Your task to perform on an android device: toggle pop-ups in chrome Image 0: 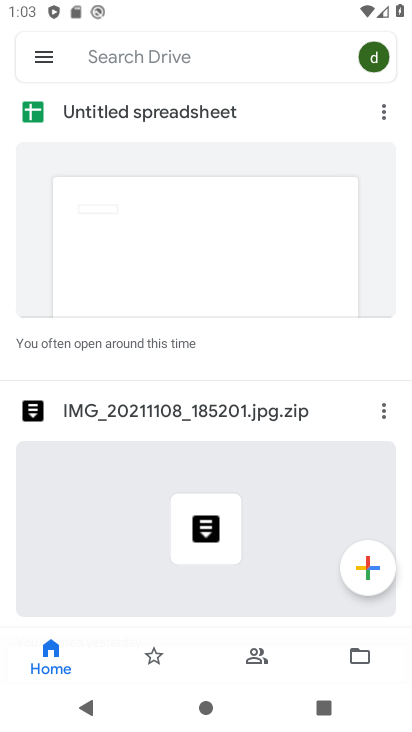
Step 0: press home button
Your task to perform on an android device: toggle pop-ups in chrome Image 1: 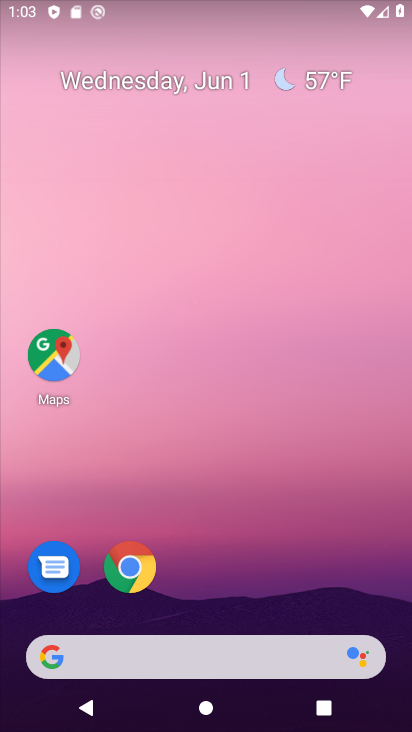
Step 1: click (135, 576)
Your task to perform on an android device: toggle pop-ups in chrome Image 2: 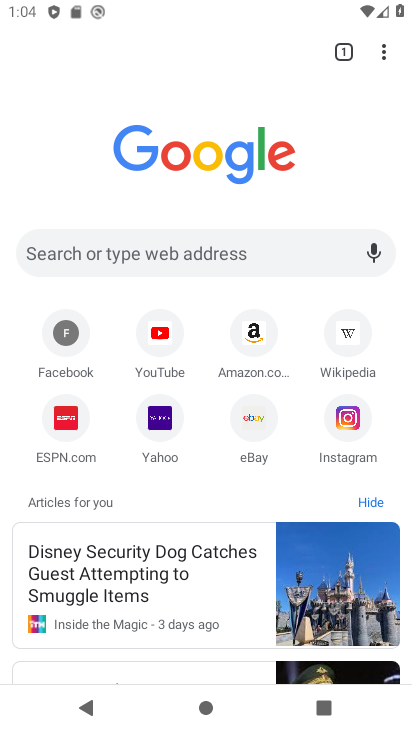
Step 2: click (379, 63)
Your task to perform on an android device: toggle pop-ups in chrome Image 3: 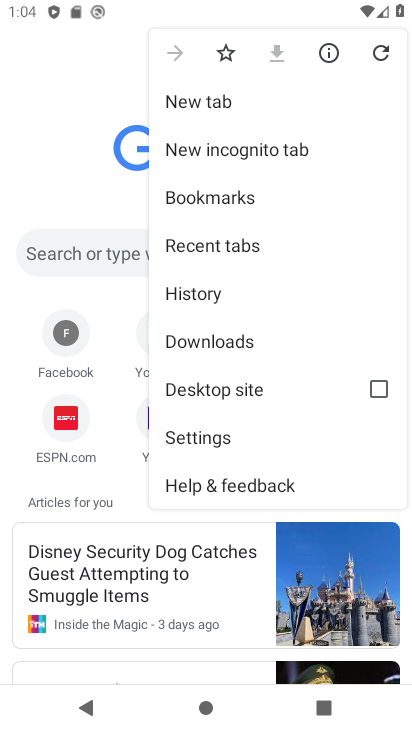
Step 3: click (266, 432)
Your task to perform on an android device: toggle pop-ups in chrome Image 4: 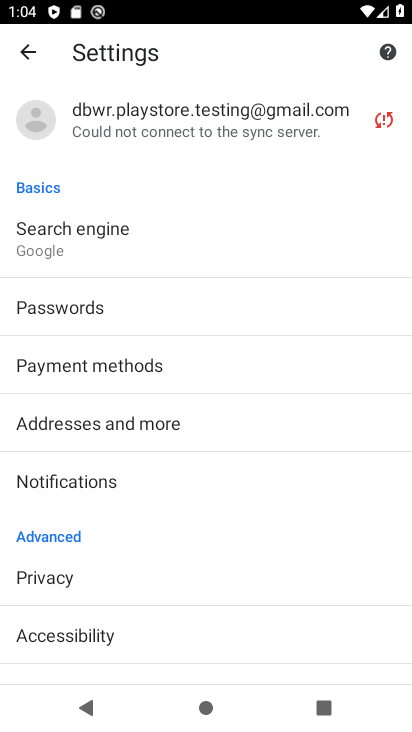
Step 4: drag from (292, 552) to (244, 394)
Your task to perform on an android device: toggle pop-ups in chrome Image 5: 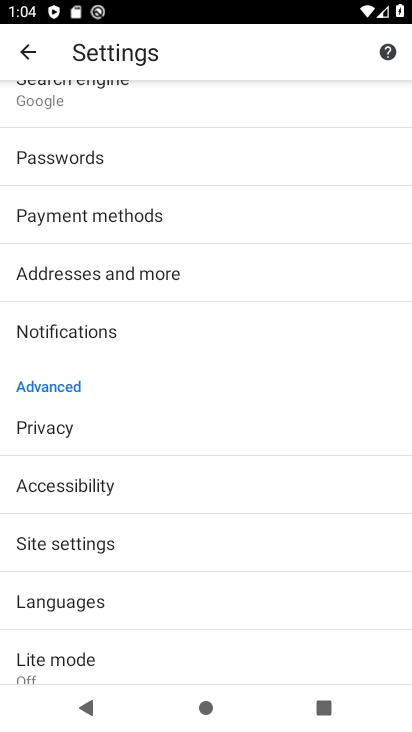
Step 5: click (205, 546)
Your task to perform on an android device: toggle pop-ups in chrome Image 6: 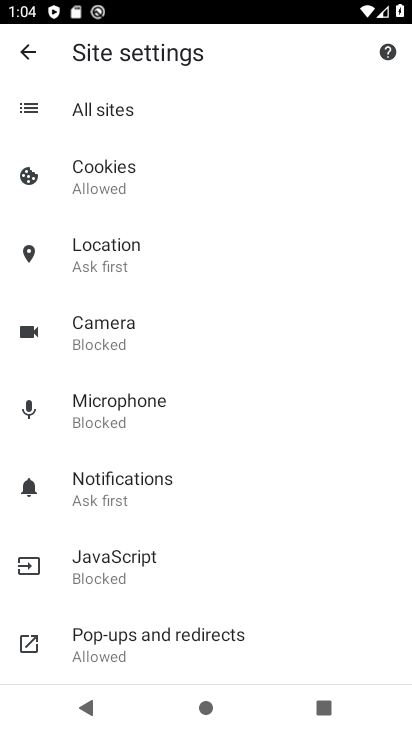
Step 6: click (241, 634)
Your task to perform on an android device: toggle pop-ups in chrome Image 7: 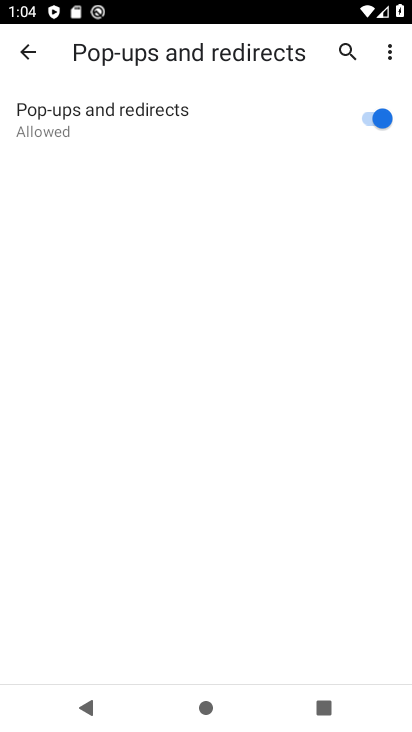
Step 7: click (368, 122)
Your task to perform on an android device: toggle pop-ups in chrome Image 8: 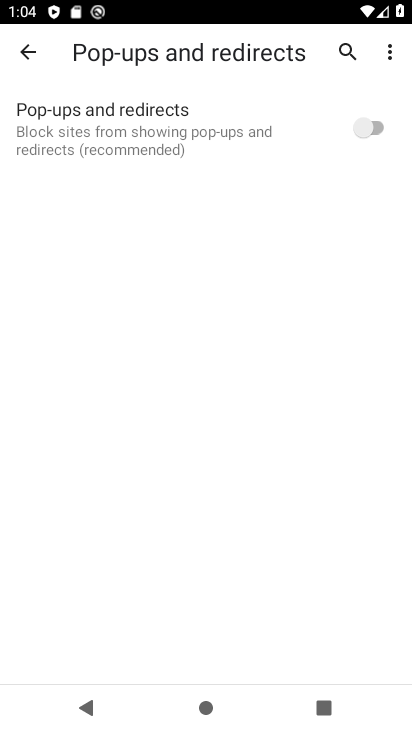
Step 8: task complete